Your task to perform on an android device: open app "Clock" Image 0: 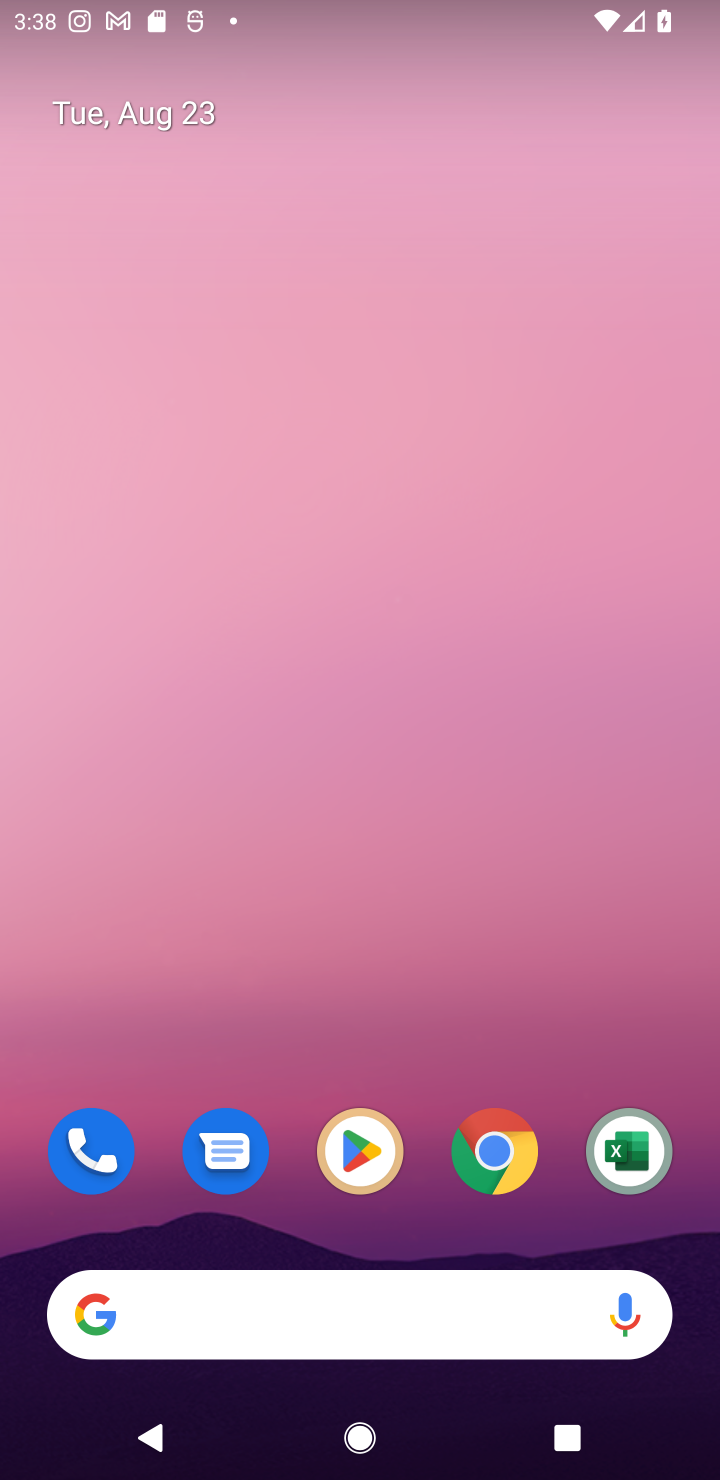
Step 0: press home button
Your task to perform on an android device: open app "Clock" Image 1: 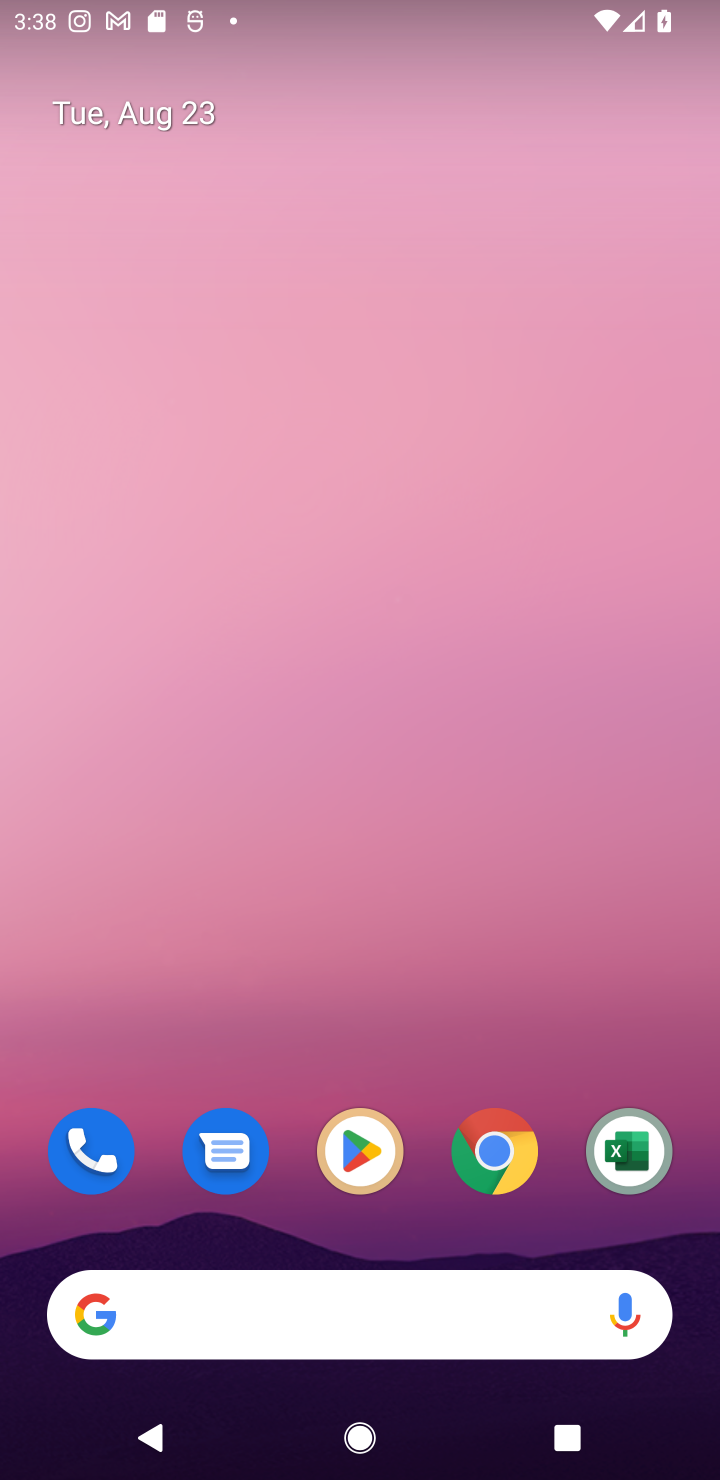
Step 1: click (370, 1157)
Your task to perform on an android device: open app "Clock" Image 2: 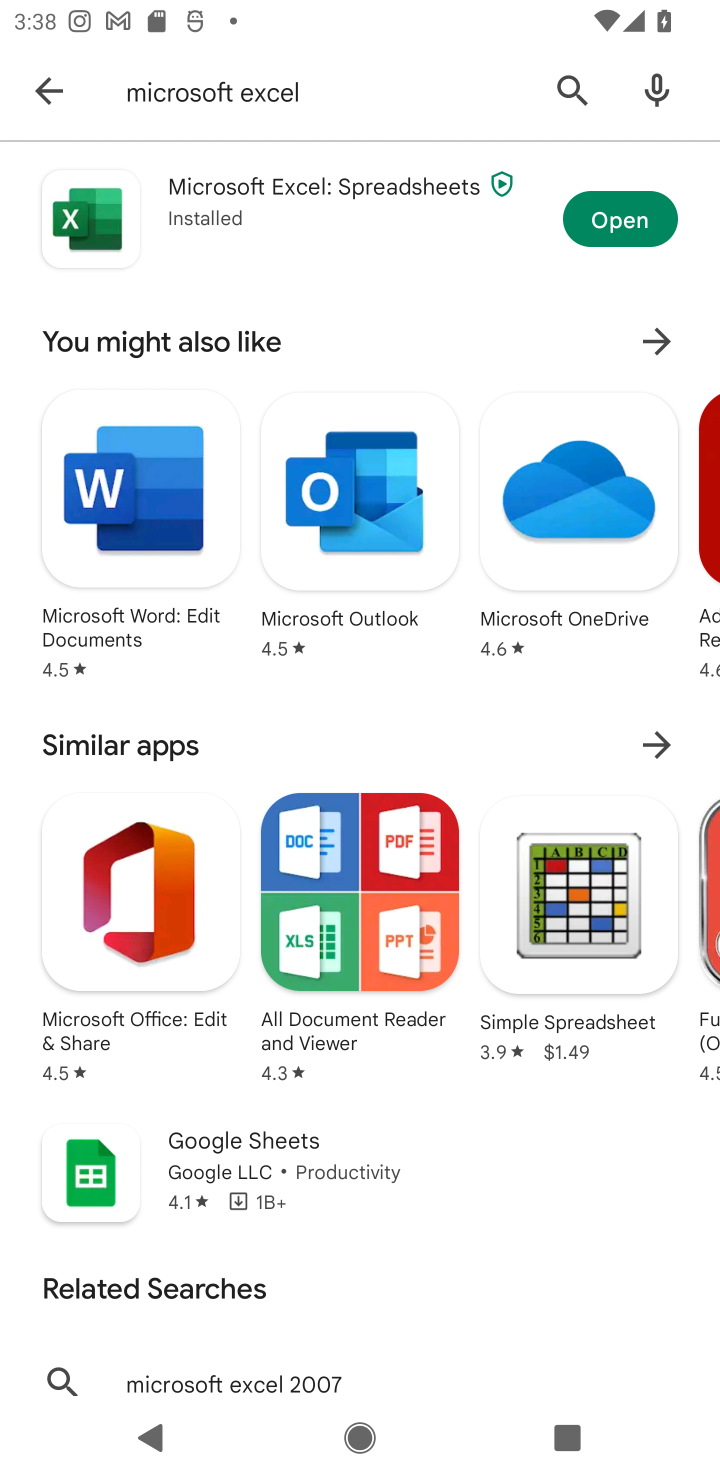
Step 2: click (563, 79)
Your task to perform on an android device: open app "Clock" Image 3: 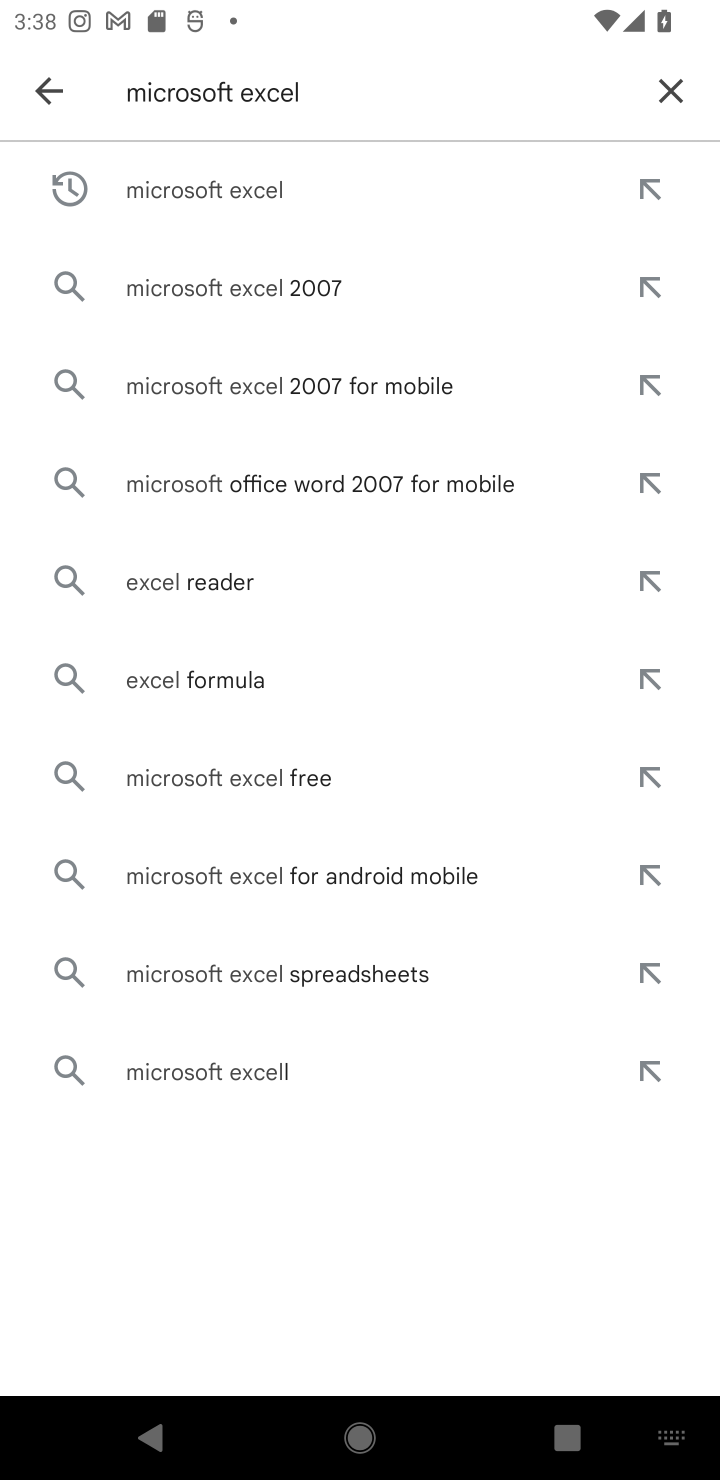
Step 3: click (672, 87)
Your task to perform on an android device: open app "Clock" Image 4: 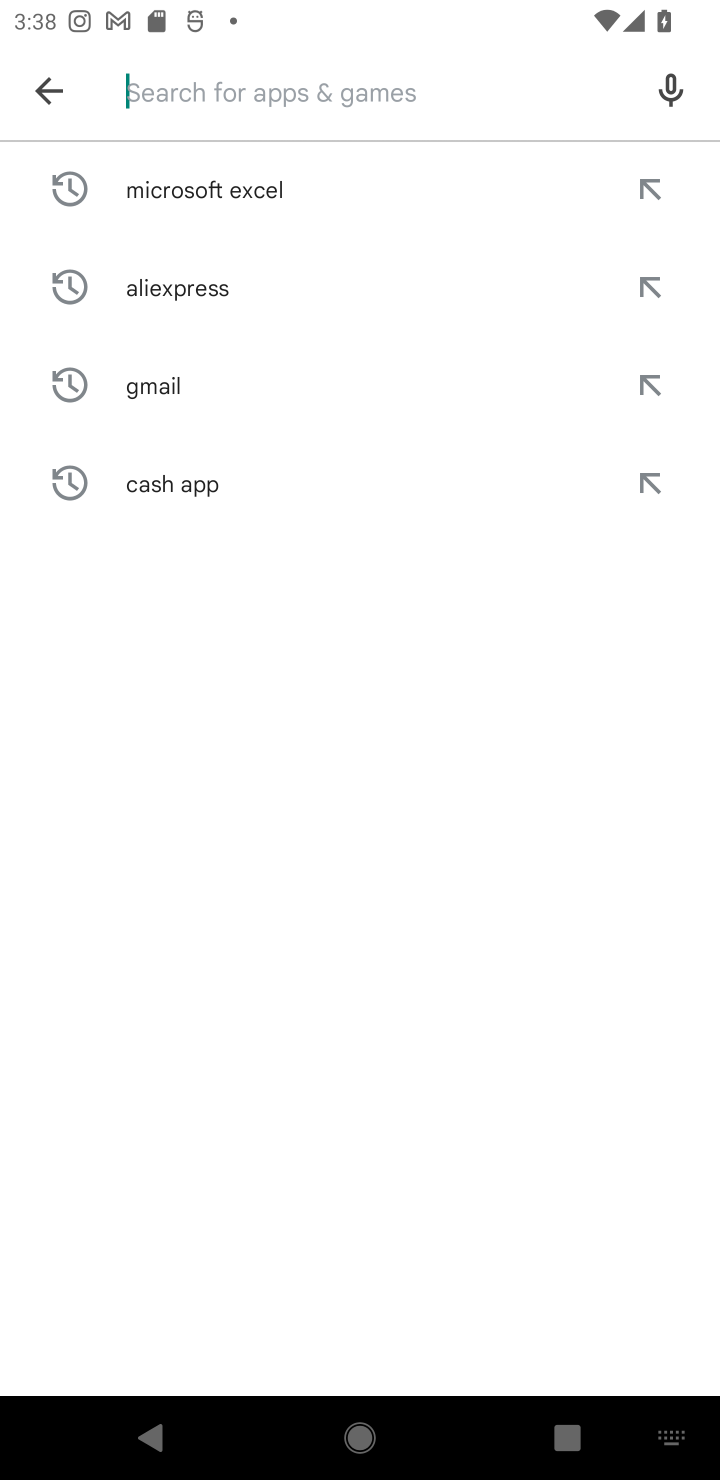
Step 4: type "Clock"
Your task to perform on an android device: open app "Clock" Image 5: 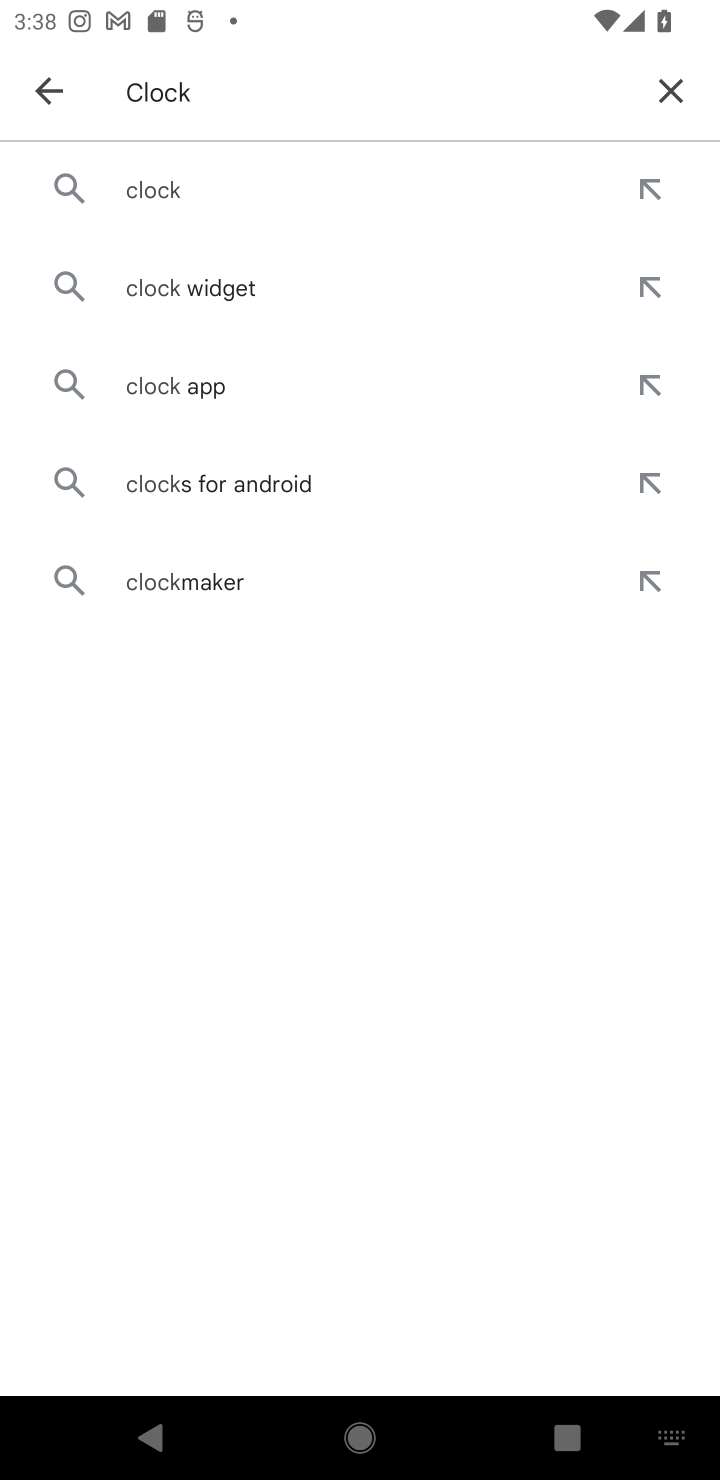
Step 5: click (181, 175)
Your task to perform on an android device: open app "Clock" Image 6: 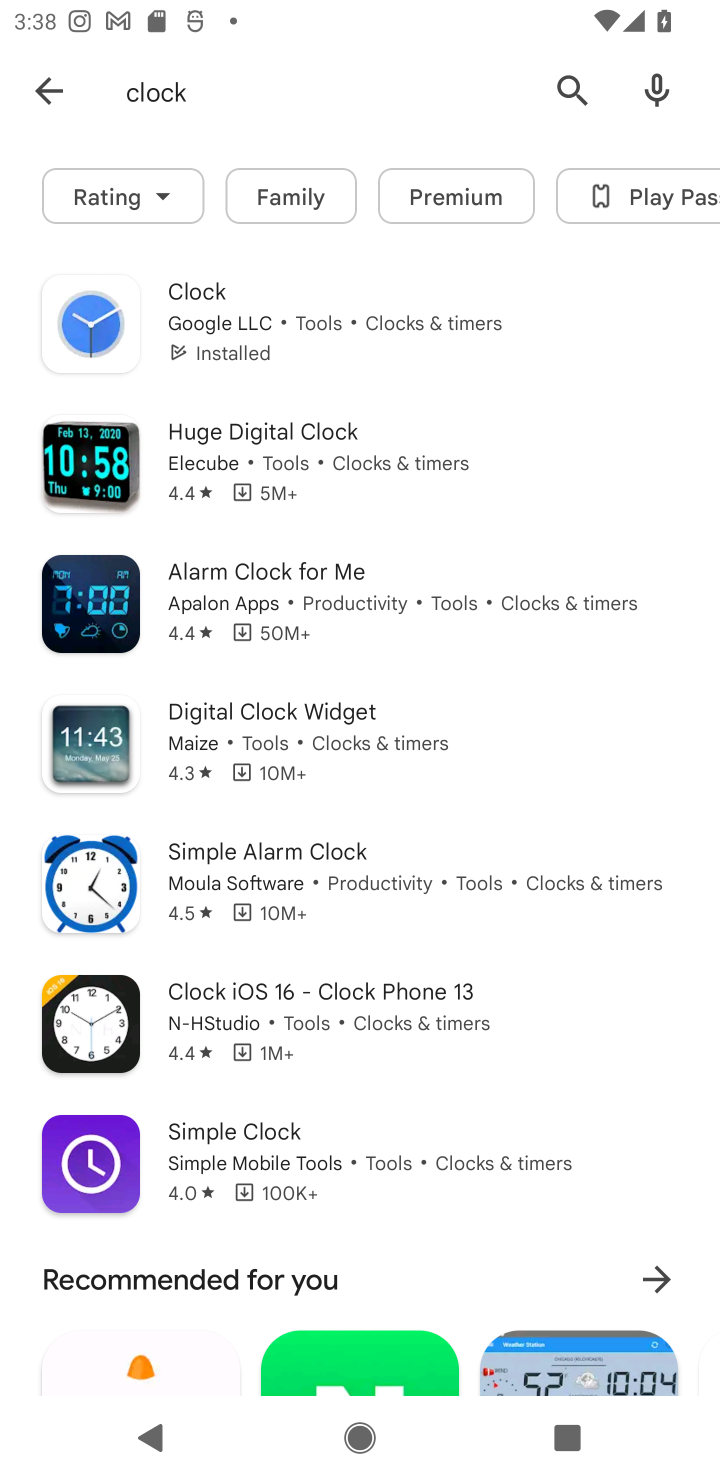
Step 6: click (276, 321)
Your task to perform on an android device: open app "Clock" Image 7: 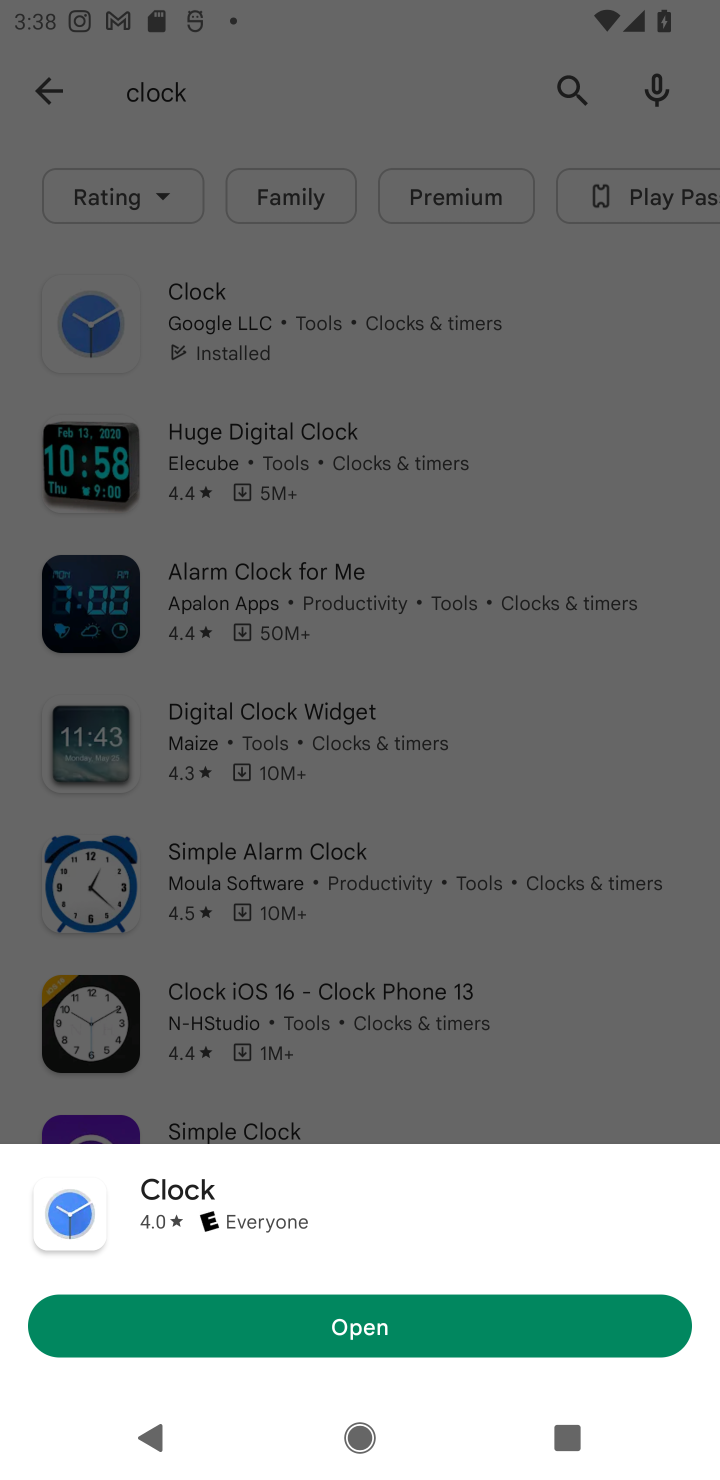
Step 7: click (370, 1323)
Your task to perform on an android device: open app "Clock" Image 8: 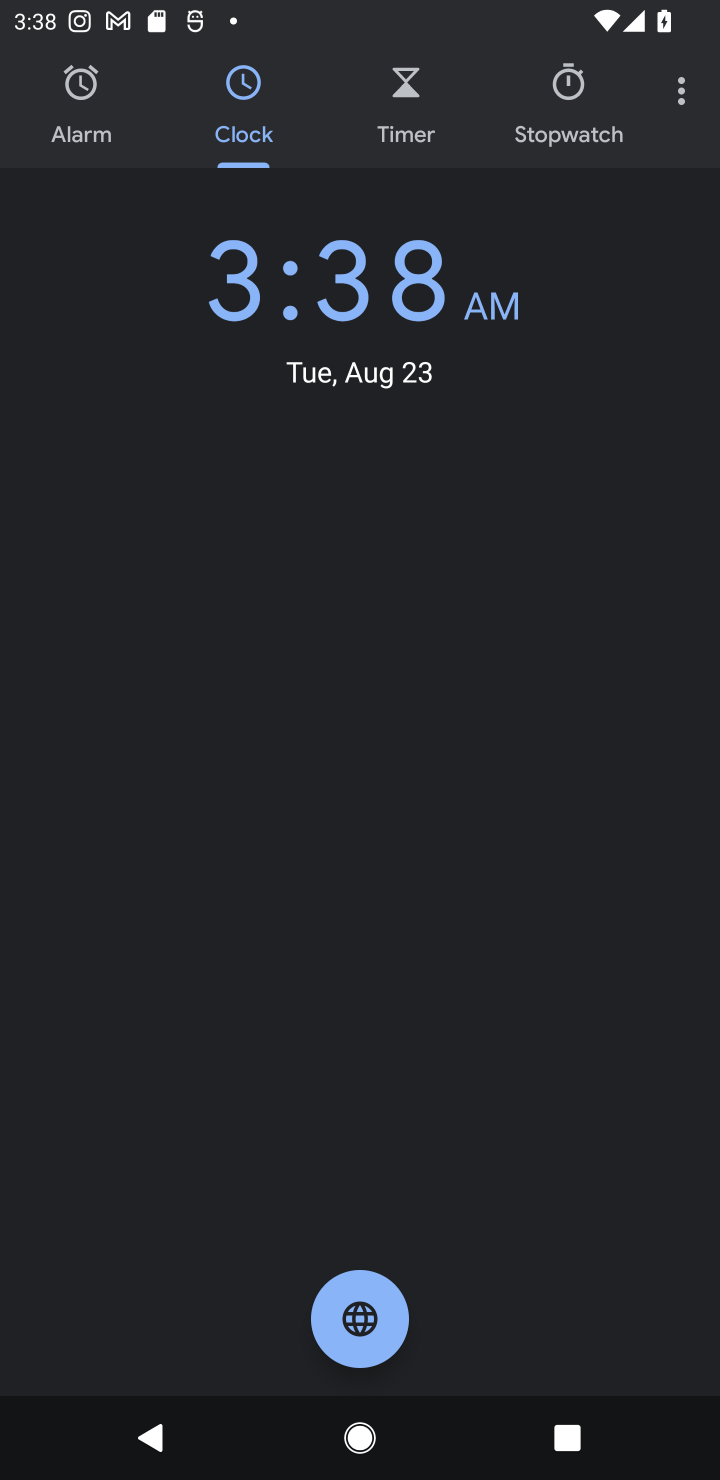
Step 8: task complete